Your task to perform on an android device: Open Reddit.com Image 0: 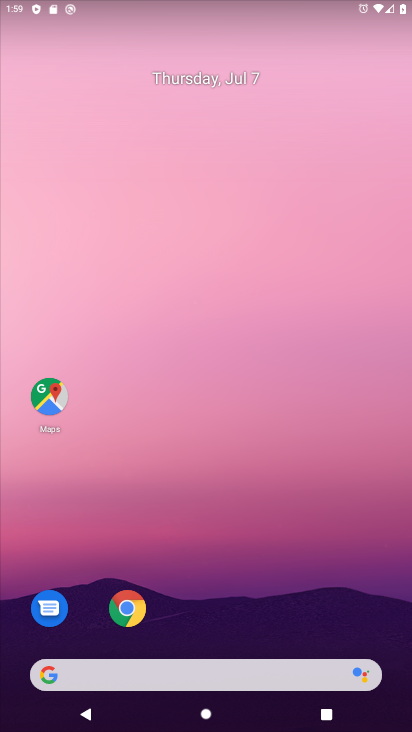
Step 0: click (123, 609)
Your task to perform on an android device: Open Reddit.com Image 1: 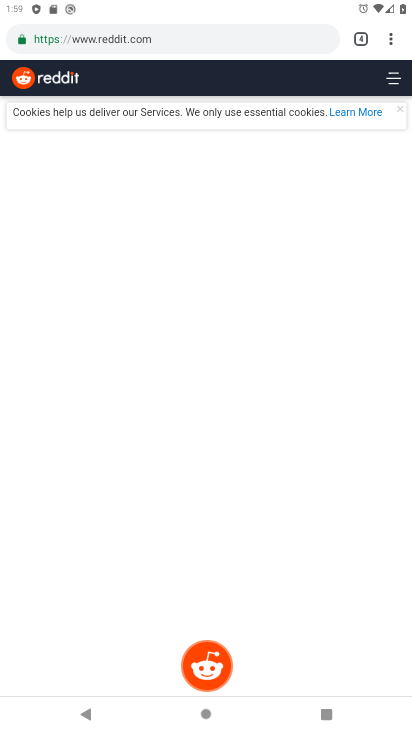
Step 1: task complete